Your task to perform on an android device: make emails show in primary in the gmail app Image 0: 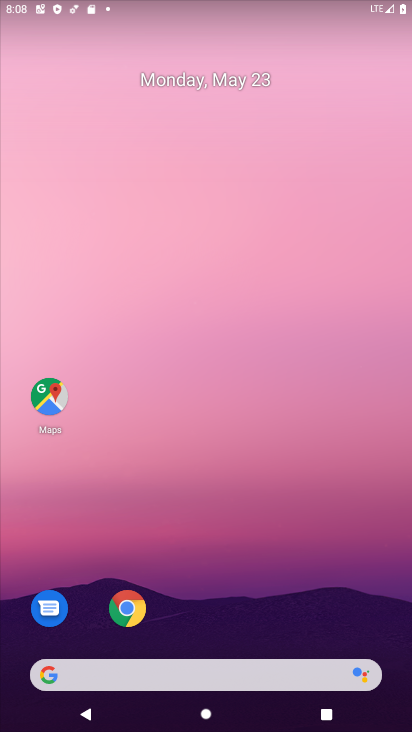
Step 0: drag from (175, 678) to (144, 359)
Your task to perform on an android device: make emails show in primary in the gmail app Image 1: 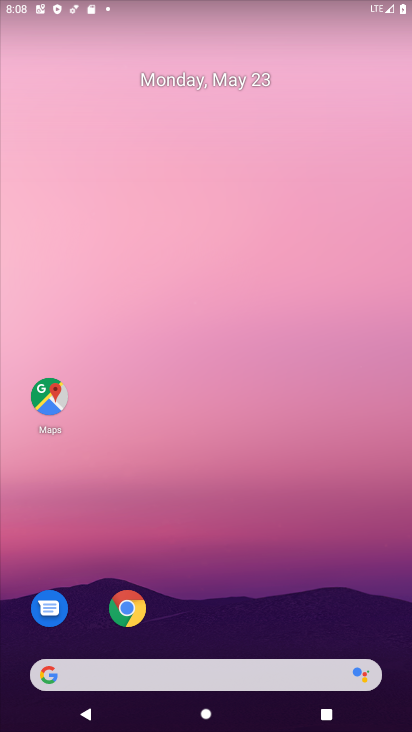
Step 1: drag from (211, 669) to (171, 277)
Your task to perform on an android device: make emails show in primary in the gmail app Image 2: 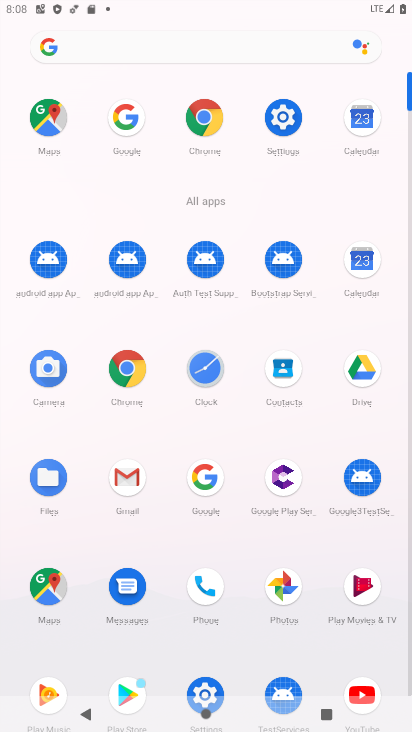
Step 2: click (136, 496)
Your task to perform on an android device: make emails show in primary in the gmail app Image 3: 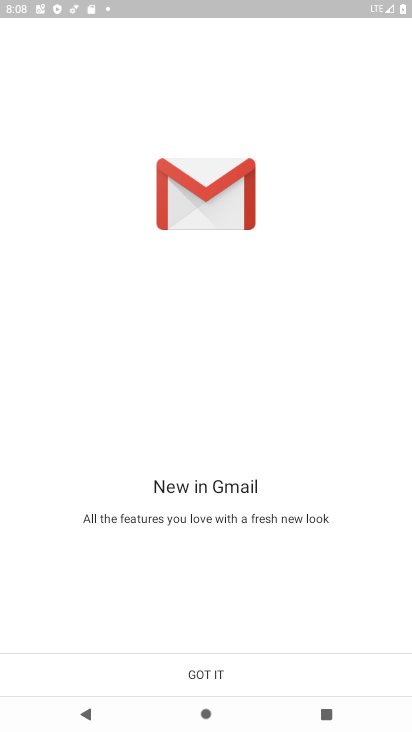
Step 3: click (264, 698)
Your task to perform on an android device: make emails show in primary in the gmail app Image 4: 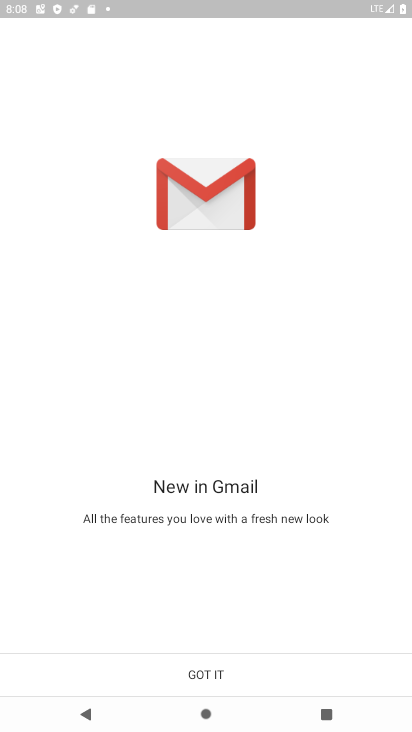
Step 4: click (275, 674)
Your task to perform on an android device: make emails show in primary in the gmail app Image 5: 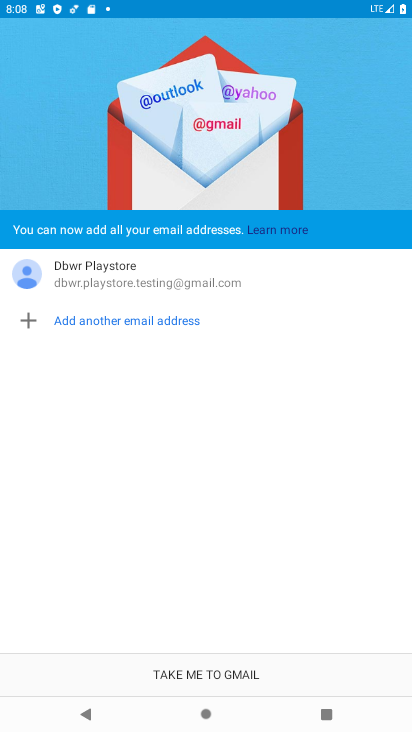
Step 5: click (275, 674)
Your task to perform on an android device: make emails show in primary in the gmail app Image 6: 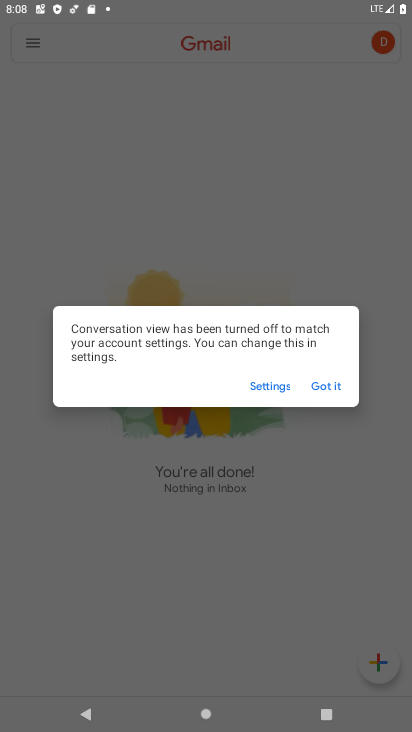
Step 6: click (331, 390)
Your task to perform on an android device: make emails show in primary in the gmail app Image 7: 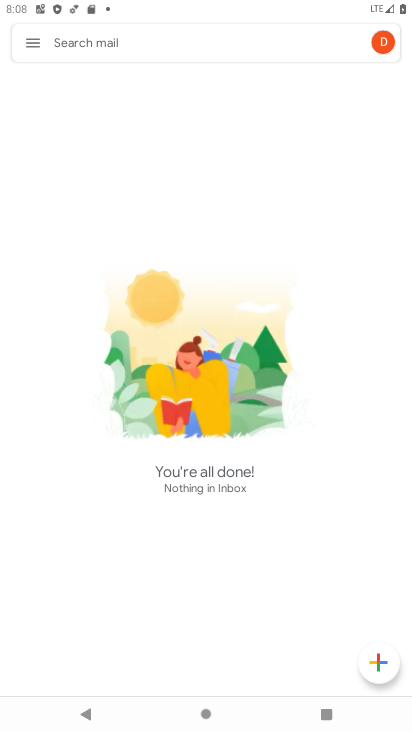
Step 7: click (34, 38)
Your task to perform on an android device: make emails show in primary in the gmail app Image 8: 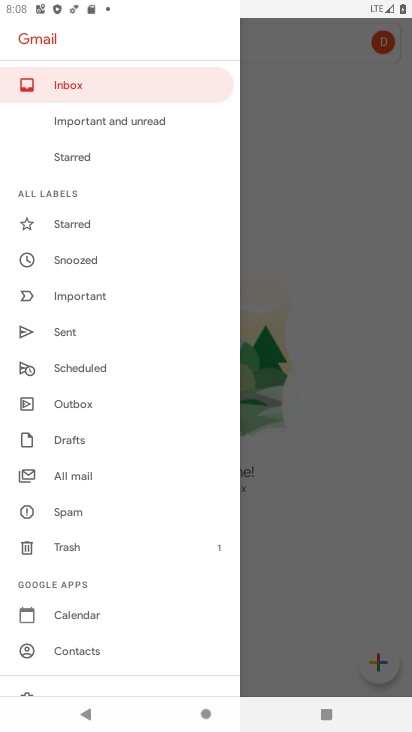
Step 8: drag from (98, 636) to (98, 305)
Your task to perform on an android device: make emails show in primary in the gmail app Image 9: 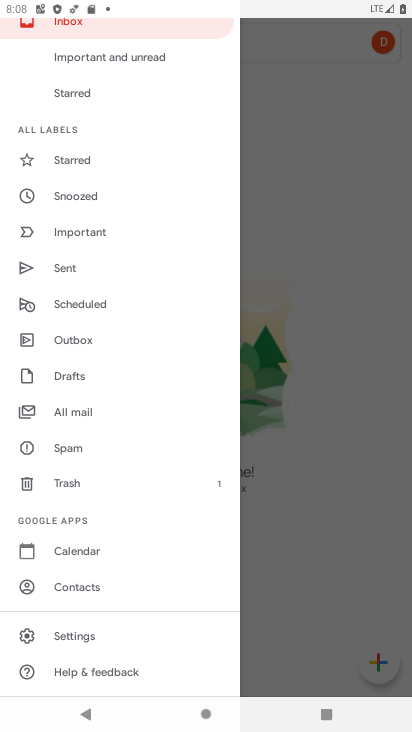
Step 9: click (60, 637)
Your task to perform on an android device: make emails show in primary in the gmail app Image 10: 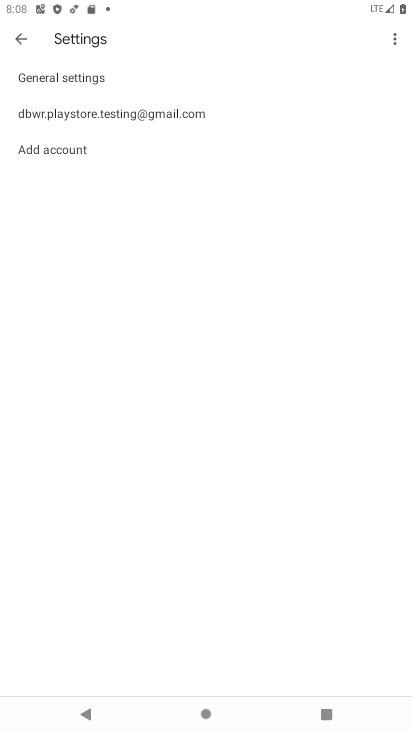
Step 10: click (100, 121)
Your task to perform on an android device: make emails show in primary in the gmail app Image 11: 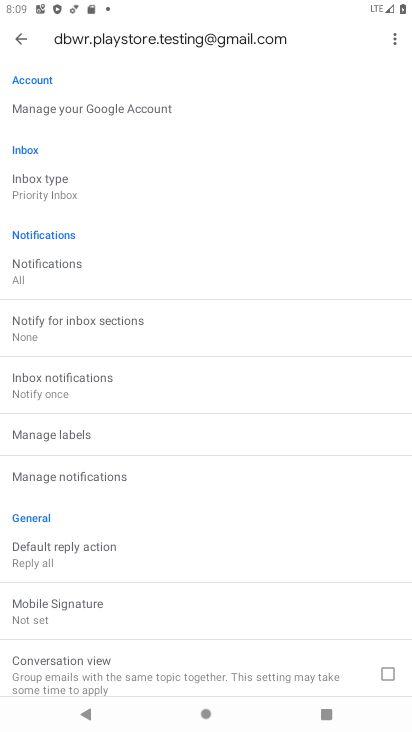
Step 11: click (55, 199)
Your task to perform on an android device: make emails show in primary in the gmail app Image 12: 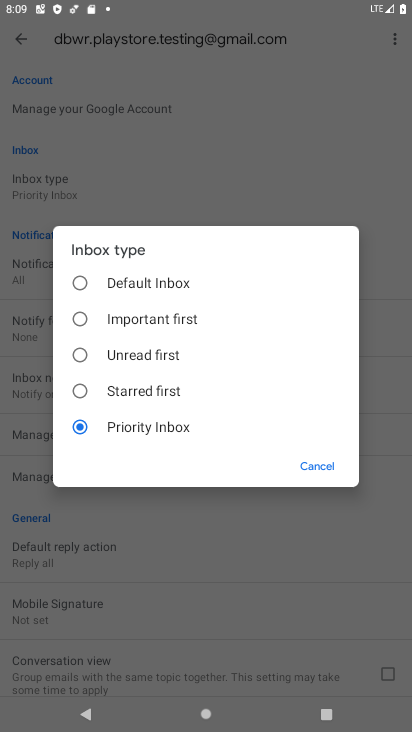
Step 12: click (137, 289)
Your task to perform on an android device: make emails show in primary in the gmail app Image 13: 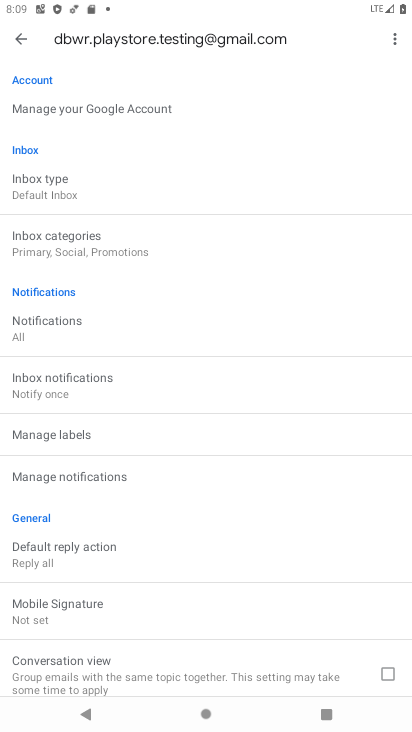
Step 13: click (88, 225)
Your task to perform on an android device: make emails show in primary in the gmail app Image 14: 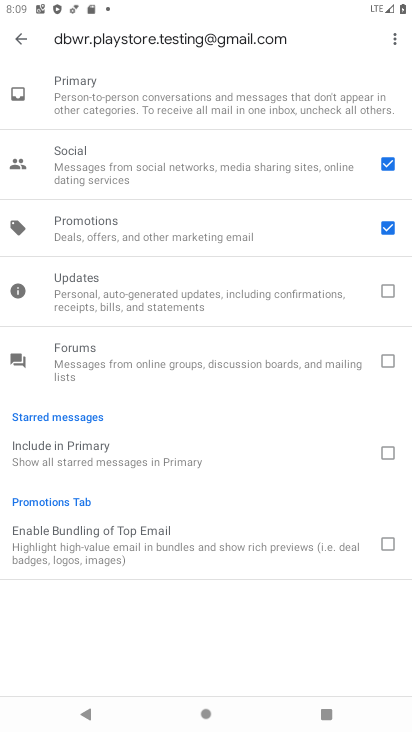
Step 14: click (387, 169)
Your task to perform on an android device: make emails show in primary in the gmail app Image 15: 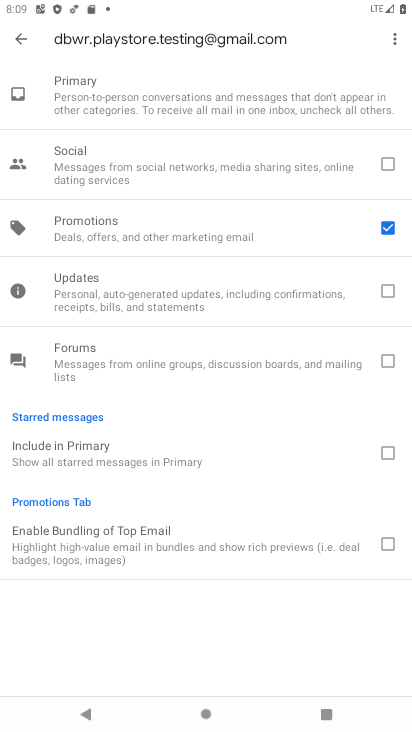
Step 15: click (388, 224)
Your task to perform on an android device: make emails show in primary in the gmail app Image 16: 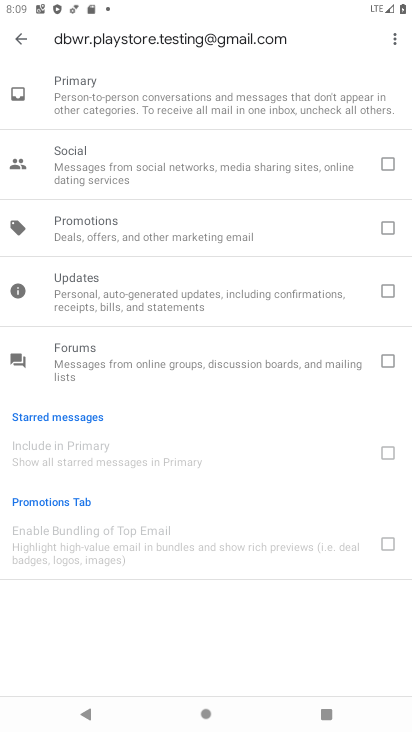
Step 16: task complete